Your task to perform on an android device: Open Amazon Image 0: 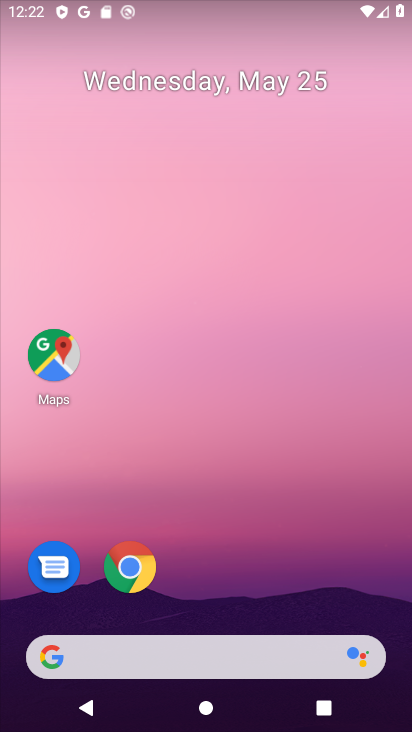
Step 0: click (134, 569)
Your task to perform on an android device: Open Amazon Image 1: 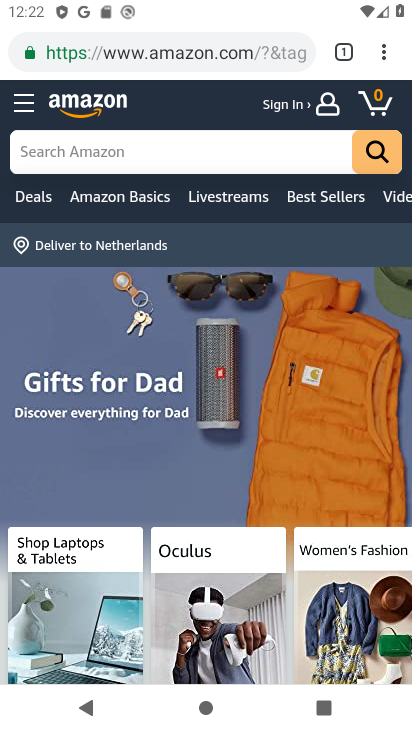
Step 1: task complete